Your task to perform on an android device: move a message to another label in the gmail app Image 0: 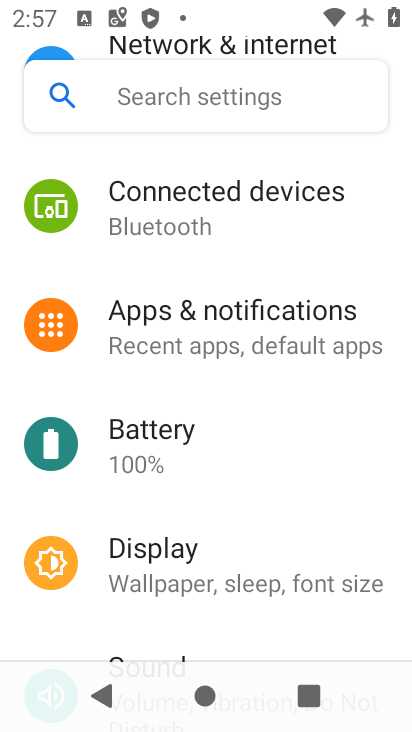
Step 0: press home button
Your task to perform on an android device: move a message to another label in the gmail app Image 1: 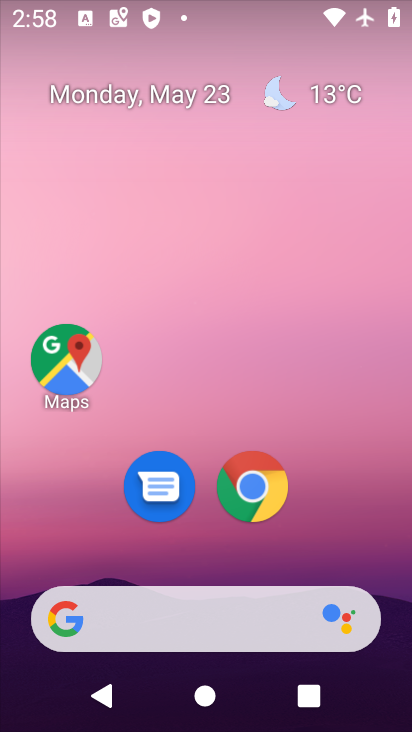
Step 1: drag from (400, 647) to (313, 120)
Your task to perform on an android device: move a message to another label in the gmail app Image 2: 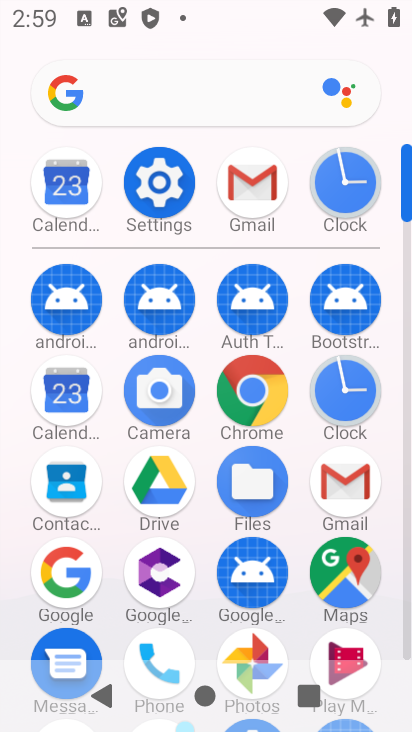
Step 2: click (346, 485)
Your task to perform on an android device: move a message to another label in the gmail app Image 3: 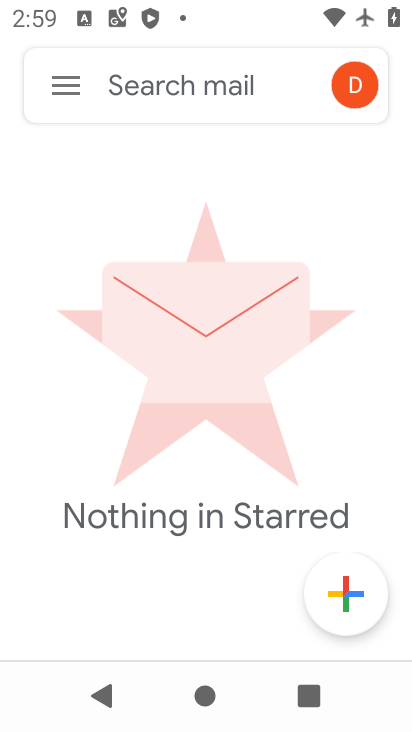
Step 3: click (62, 79)
Your task to perform on an android device: move a message to another label in the gmail app Image 4: 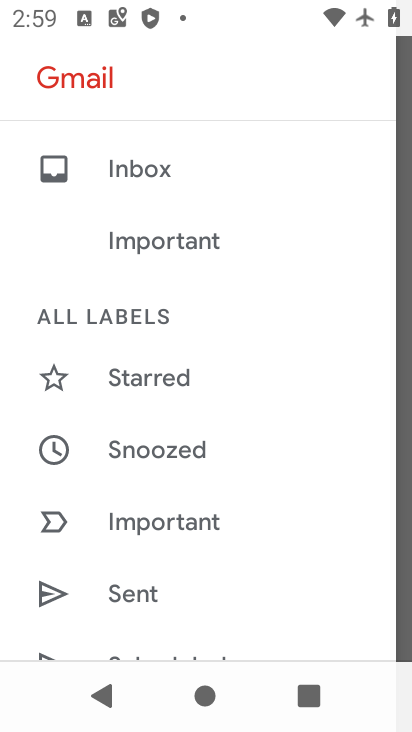
Step 4: click (132, 167)
Your task to perform on an android device: move a message to another label in the gmail app Image 5: 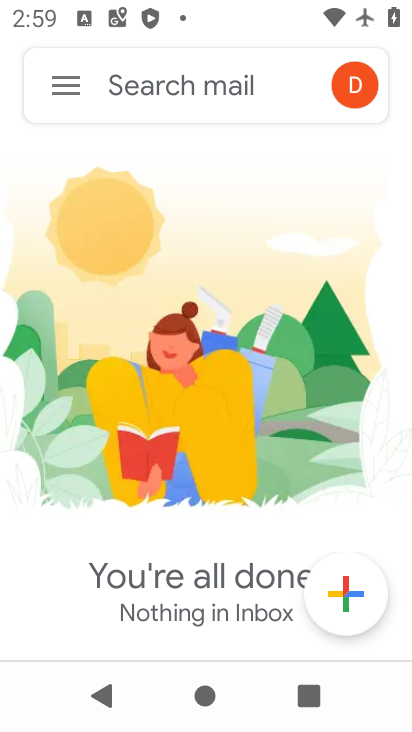
Step 5: task complete